Your task to perform on an android device: move an email to a new category in the gmail app Image 0: 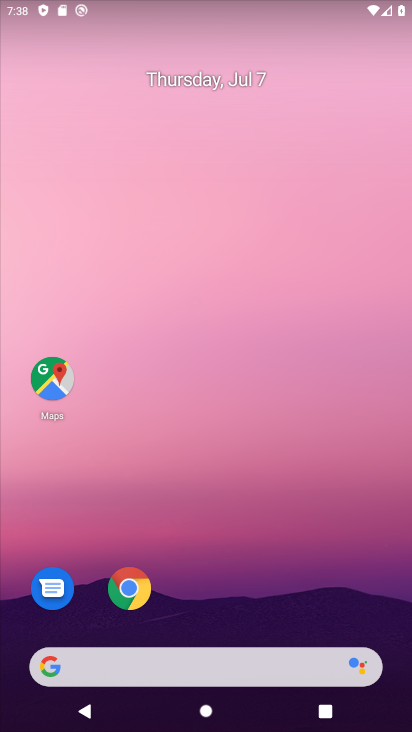
Step 0: drag from (184, 455) to (185, 189)
Your task to perform on an android device: move an email to a new category in the gmail app Image 1: 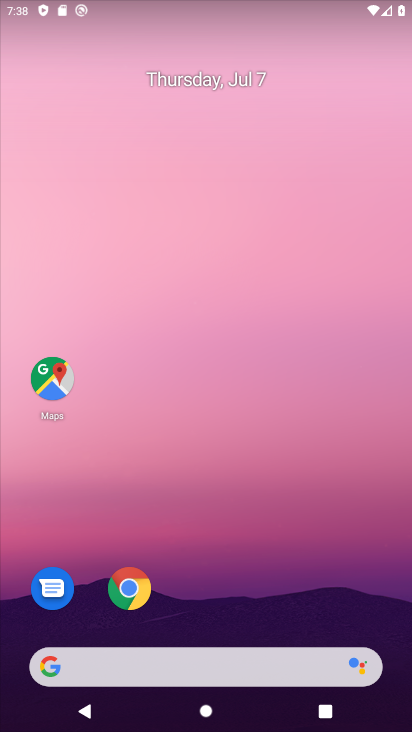
Step 1: drag from (194, 610) to (237, 190)
Your task to perform on an android device: move an email to a new category in the gmail app Image 2: 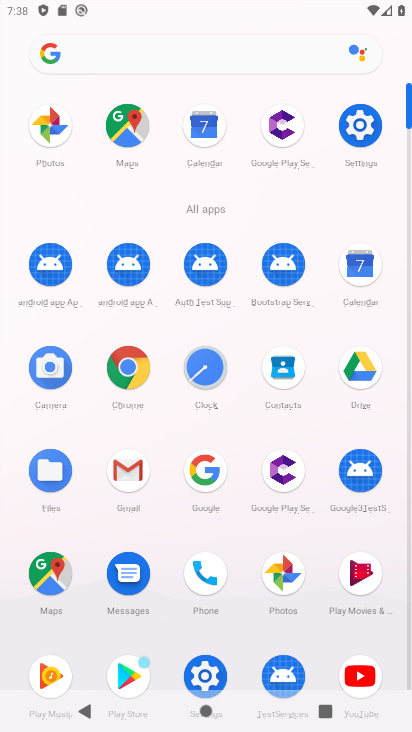
Step 2: click (117, 457)
Your task to perform on an android device: move an email to a new category in the gmail app Image 3: 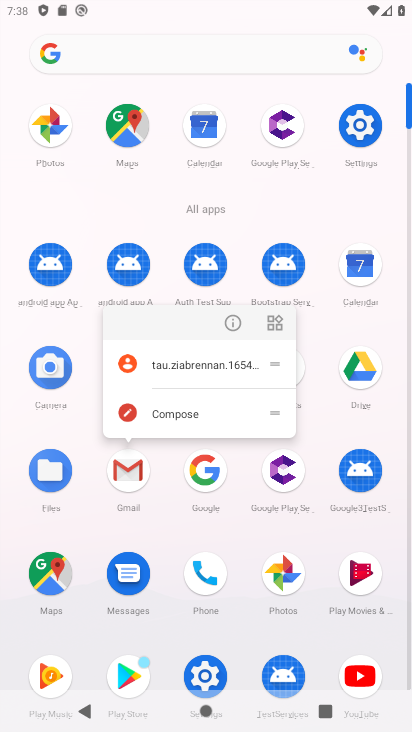
Step 3: click (230, 327)
Your task to perform on an android device: move an email to a new category in the gmail app Image 4: 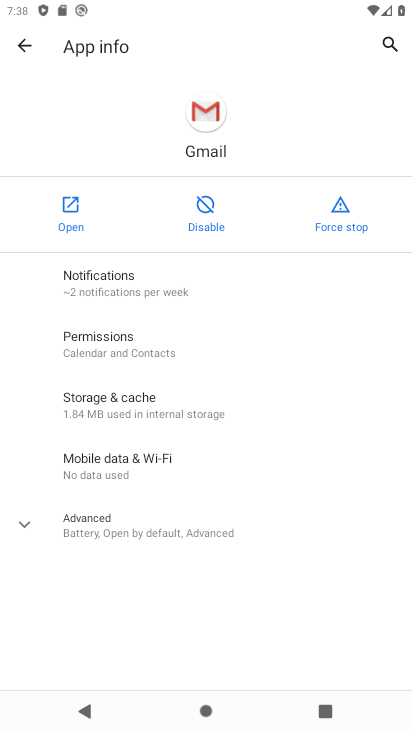
Step 4: click (75, 204)
Your task to perform on an android device: move an email to a new category in the gmail app Image 5: 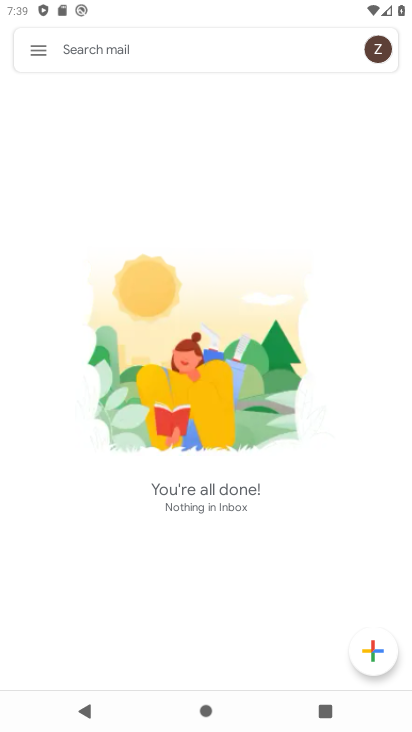
Step 5: click (38, 55)
Your task to perform on an android device: move an email to a new category in the gmail app Image 6: 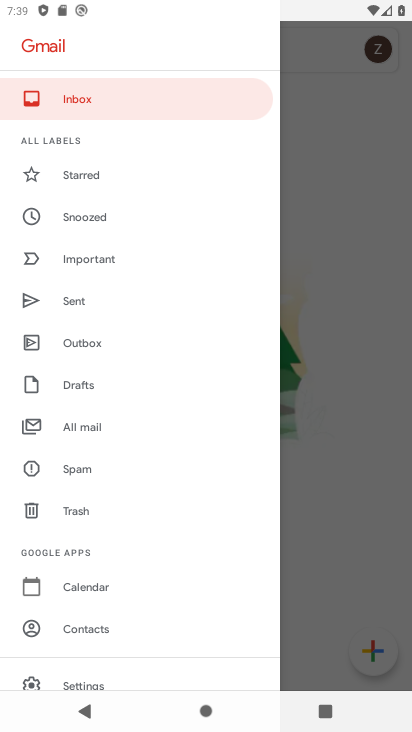
Step 6: click (77, 431)
Your task to perform on an android device: move an email to a new category in the gmail app Image 7: 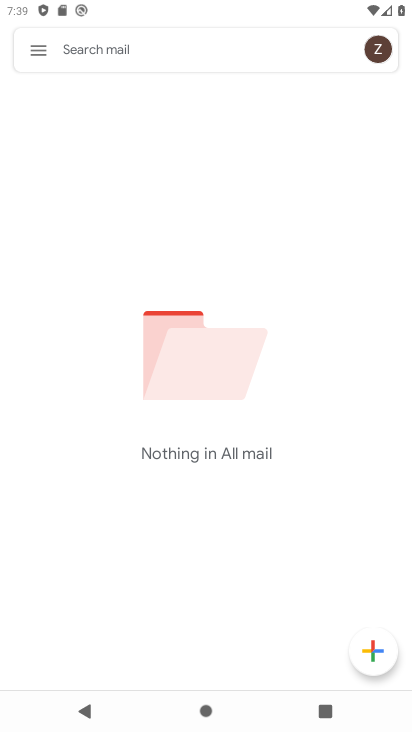
Step 7: drag from (186, 557) to (200, 181)
Your task to perform on an android device: move an email to a new category in the gmail app Image 8: 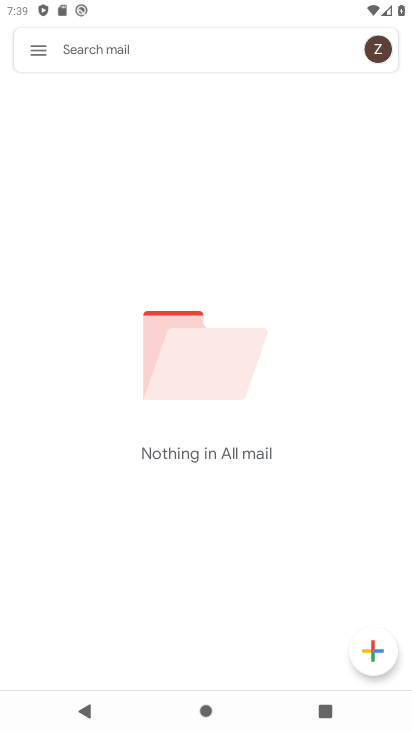
Step 8: drag from (233, 509) to (220, 308)
Your task to perform on an android device: move an email to a new category in the gmail app Image 9: 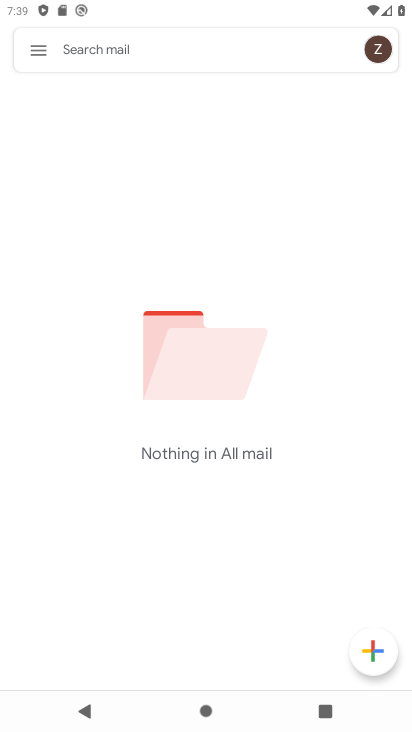
Step 9: click (201, 223)
Your task to perform on an android device: move an email to a new category in the gmail app Image 10: 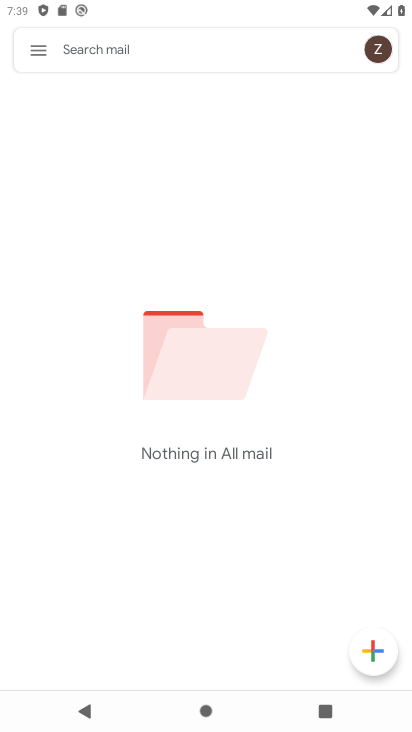
Step 10: click (33, 53)
Your task to perform on an android device: move an email to a new category in the gmail app Image 11: 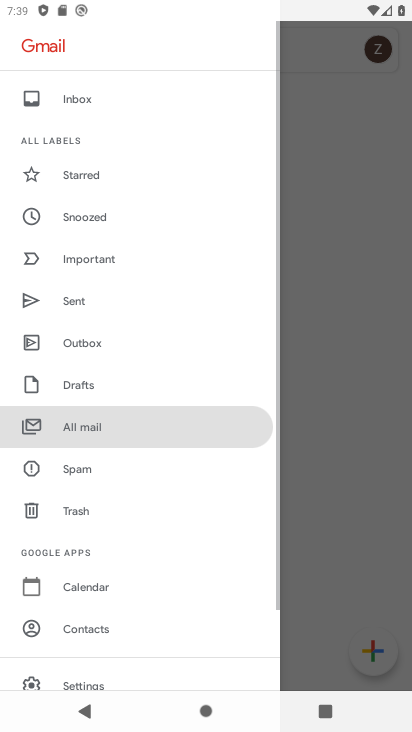
Step 11: click (355, 280)
Your task to perform on an android device: move an email to a new category in the gmail app Image 12: 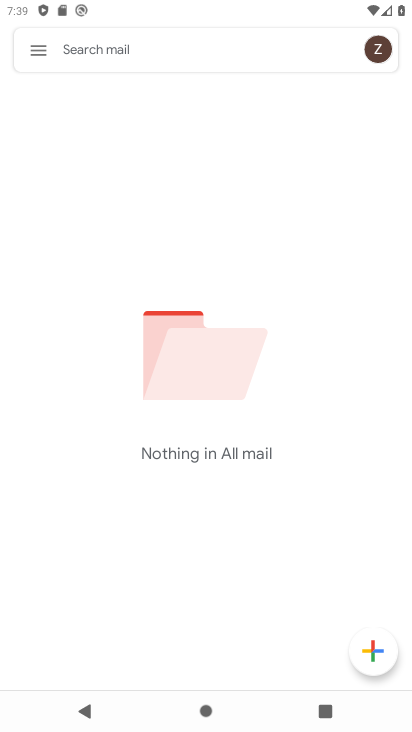
Step 12: task complete